Your task to perform on an android device: open app "Gmail" (install if not already installed) Image 0: 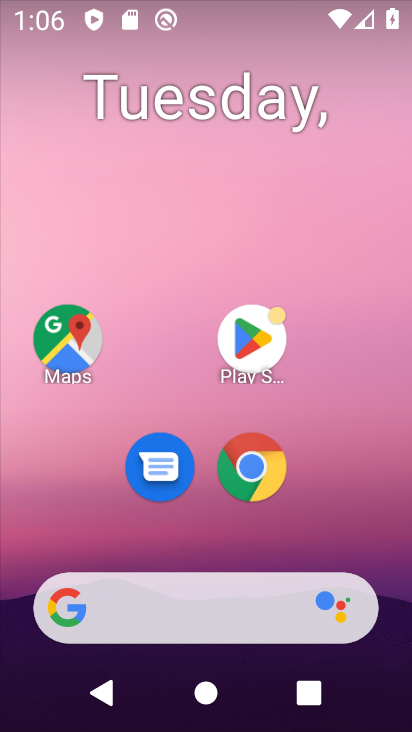
Step 0: click (245, 332)
Your task to perform on an android device: open app "Gmail" (install if not already installed) Image 1: 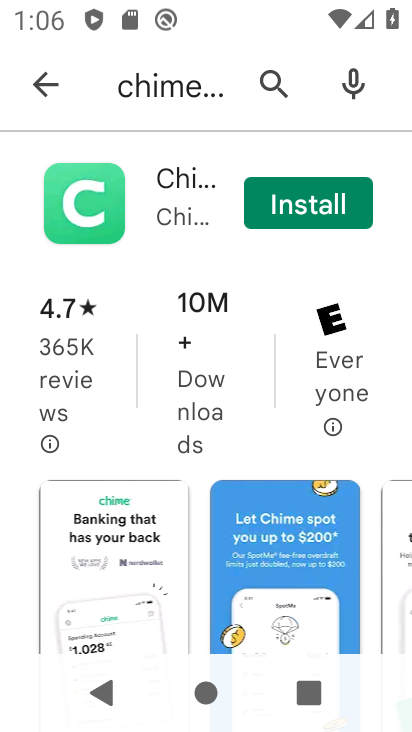
Step 1: click (275, 75)
Your task to perform on an android device: open app "Gmail" (install if not already installed) Image 2: 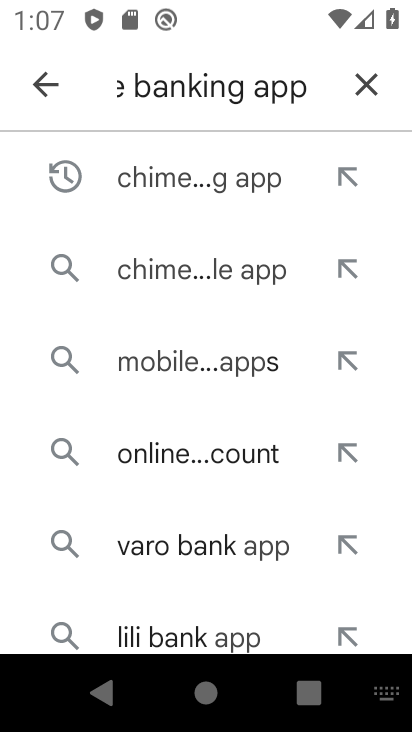
Step 2: click (369, 80)
Your task to perform on an android device: open app "Gmail" (install if not already installed) Image 3: 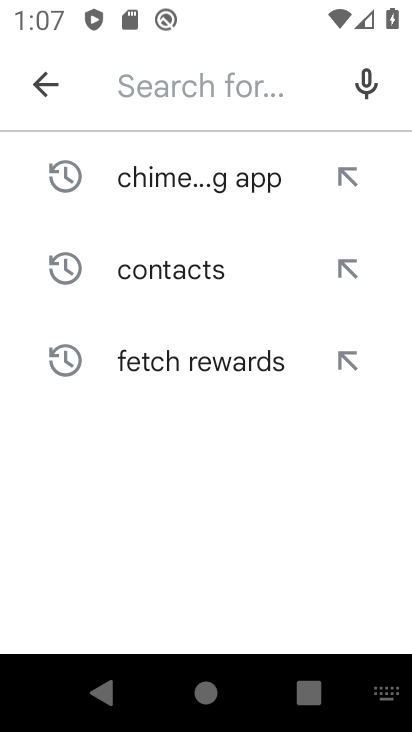
Step 3: type "Gmail"
Your task to perform on an android device: open app "Gmail" (install if not already installed) Image 4: 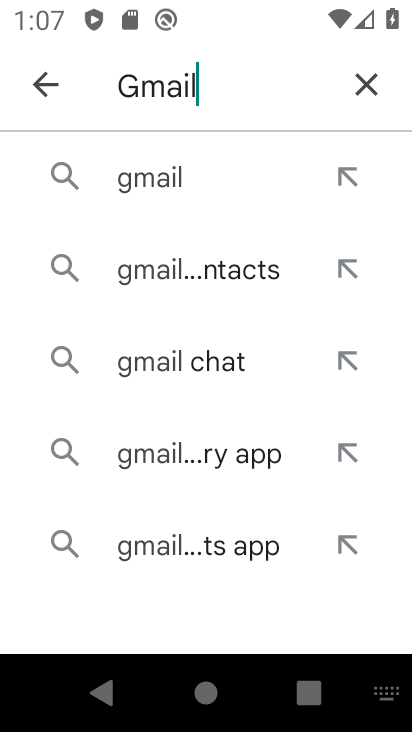
Step 4: click (124, 186)
Your task to perform on an android device: open app "Gmail" (install if not already installed) Image 5: 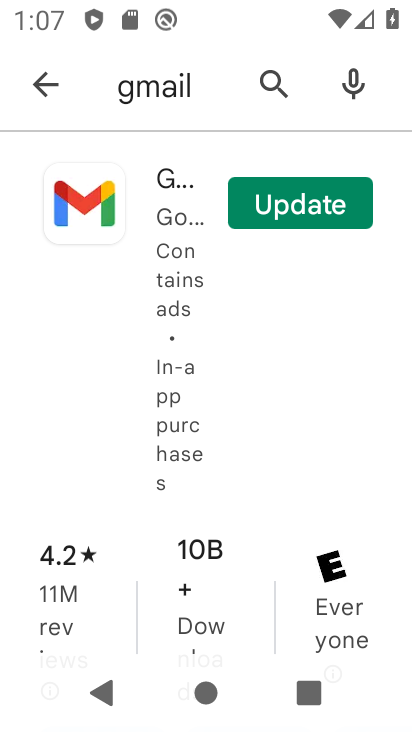
Step 5: click (121, 213)
Your task to perform on an android device: open app "Gmail" (install if not already installed) Image 6: 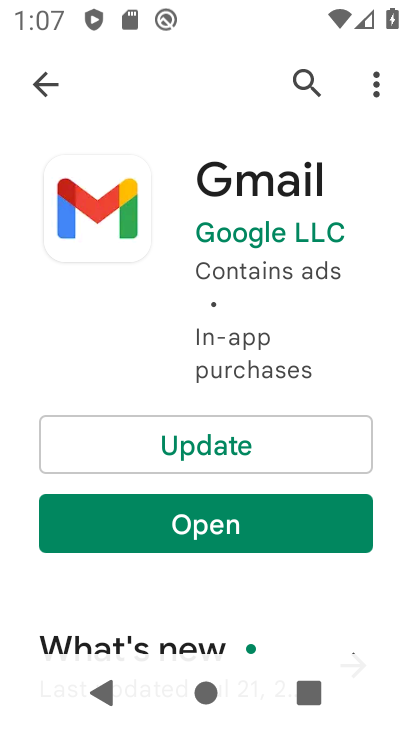
Step 6: click (221, 522)
Your task to perform on an android device: open app "Gmail" (install if not already installed) Image 7: 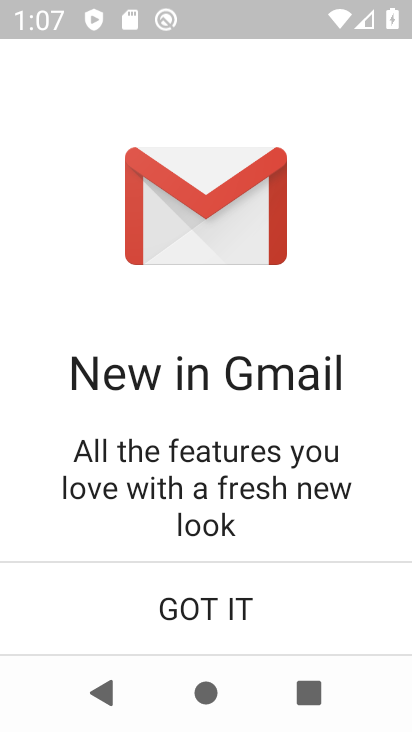
Step 7: task complete